Your task to perform on an android device: What's the weather today? Image 0: 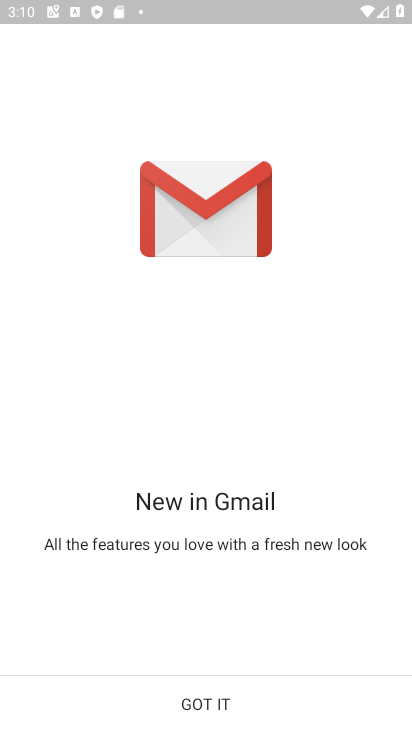
Step 0: drag from (220, 612) to (217, 478)
Your task to perform on an android device: What's the weather today? Image 1: 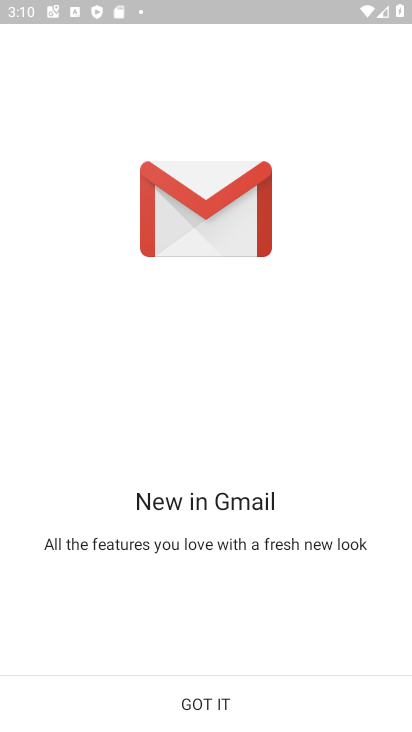
Step 1: press home button
Your task to perform on an android device: What's the weather today? Image 2: 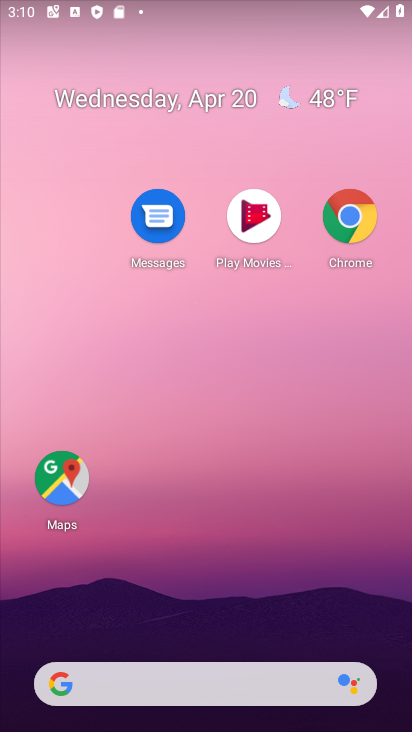
Step 2: click (305, 105)
Your task to perform on an android device: What's the weather today? Image 3: 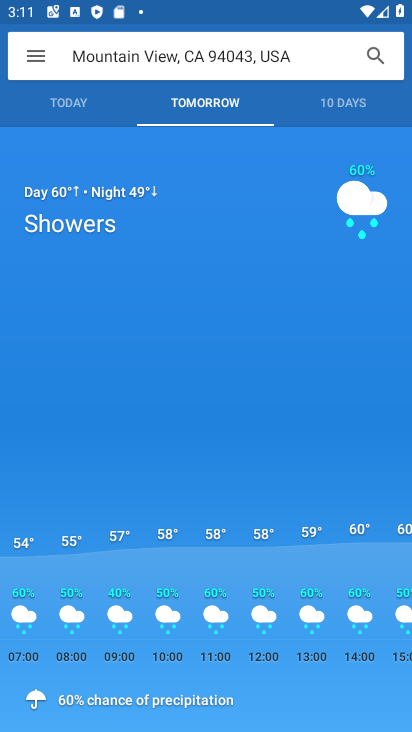
Step 3: task complete